Your task to perform on an android device: Open Reddit.com Image 0: 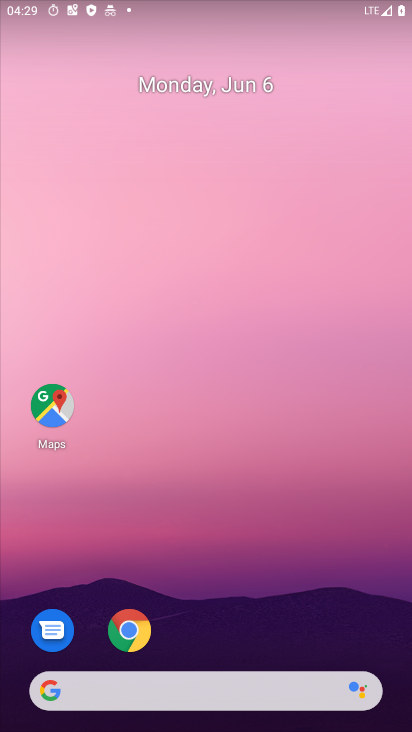
Step 0: drag from (252, 564) to (226, 219)
Your task to perform on an android device: Open Reddit.com Image 1: 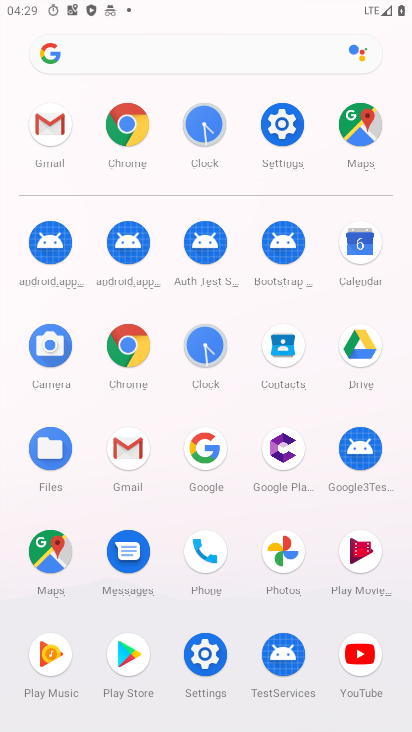
Step 1: click (139, 350)
Your task to perform on an android device: Open Reddit.com Image 2: 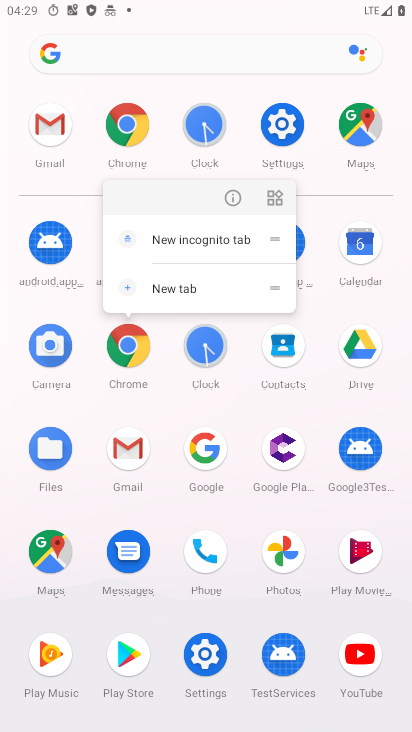
Step 2: click (131, 341)
Your task to perform on an android device: Open Reddit.com Image 3: 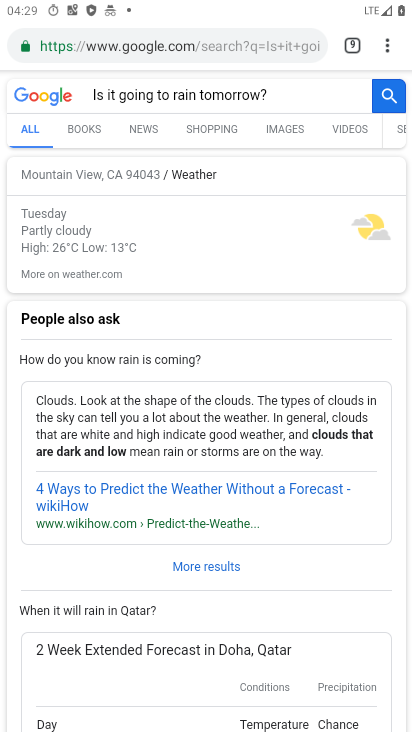
Step 3: click (126, 42)
Your task to perform on an android device: Open Reddit.com Image 4: 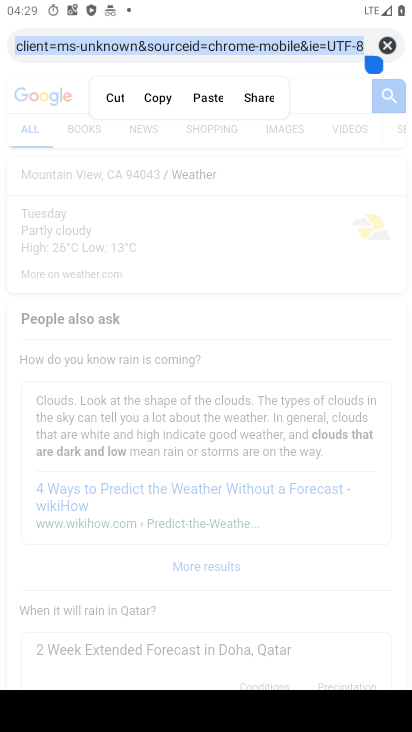
Step 4: click (385, 50)
Your task to perform on an android device: Open Reddit.com Image 5: 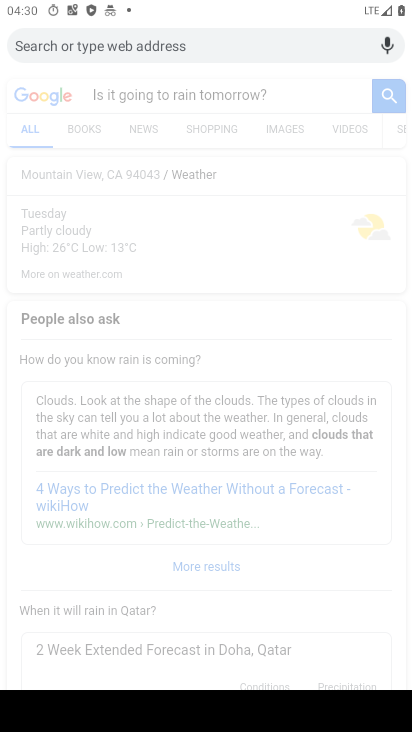
Step 5: type "Reddit.com"
Your task to perform on an android device: Open Reddit.com Image 6: 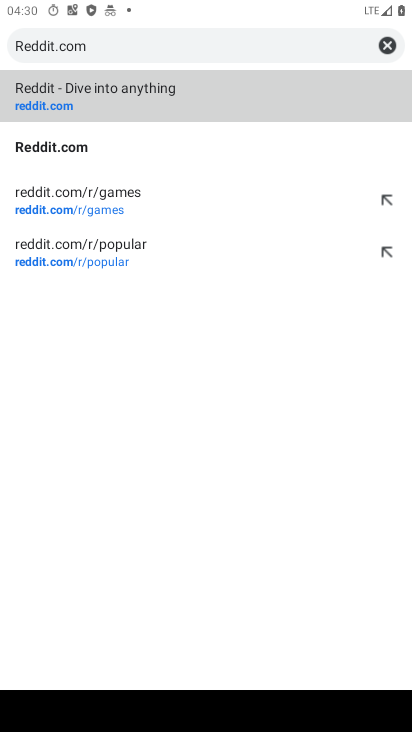
Step 6: click (20, 106)
Your task to perform on an android device: Open Reddit.com Image 7: 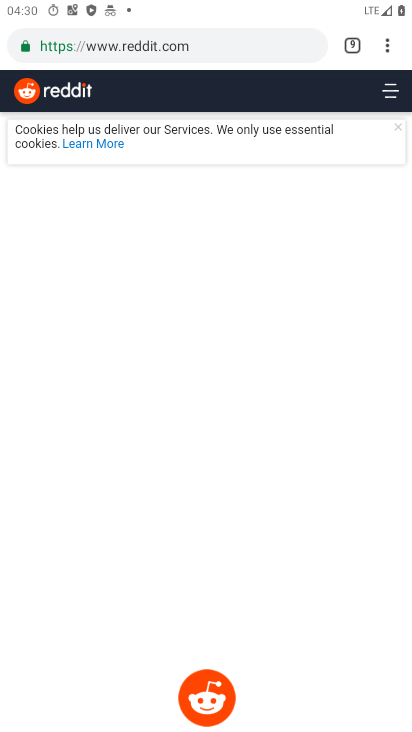
Step 7: task complete